Your task to perform on an android device: Clear all items from cart on walmart. Search for bose quietcomfort 35 on walmart, select the first entry, and add it to the cart. Image 0: 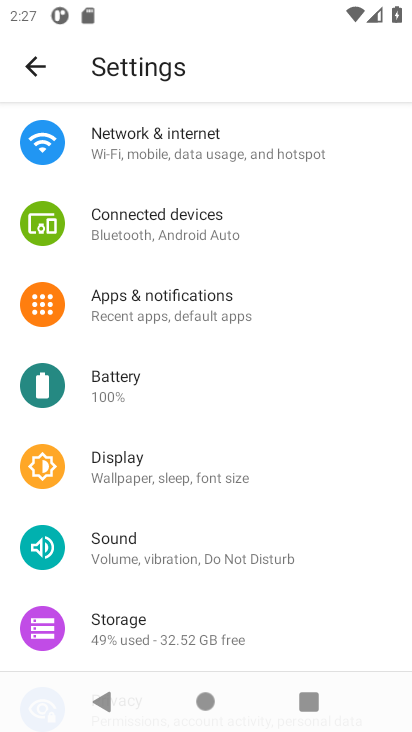
Step 0: press home button
Your task to perform on an android device: Clear all items from cart on walmart. Search for bose quietcomfort 35 on walmart, select the first entry, and add it to the cart. Image 1: 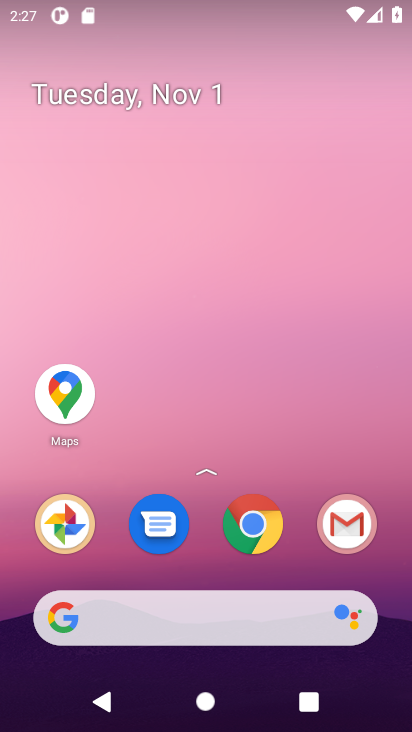
Step 1: click (253, 522)
Your task to perform on an android device: Clear all items from cart on walmart. Search for bose quietcomfort 35 on walmart, select the first entry, and add it to the cart. Image 2: 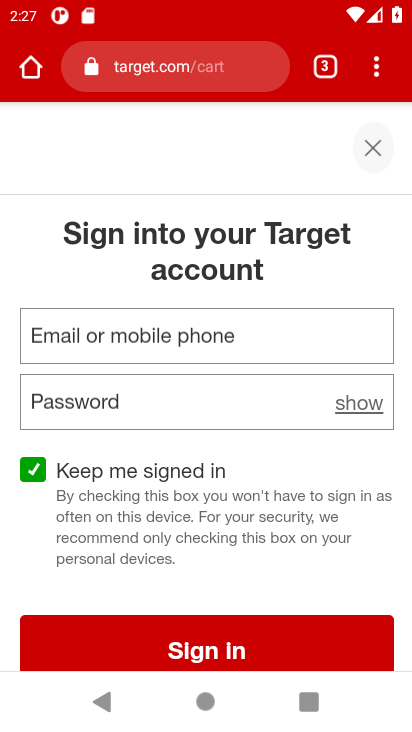
Step 2: click (177, 41)
Your task to perform on an android device: Clear all items from cart on walmart. Search for bose quietcomfort 35 on walmart, select the first entry, and add it to the cart. Image 3: 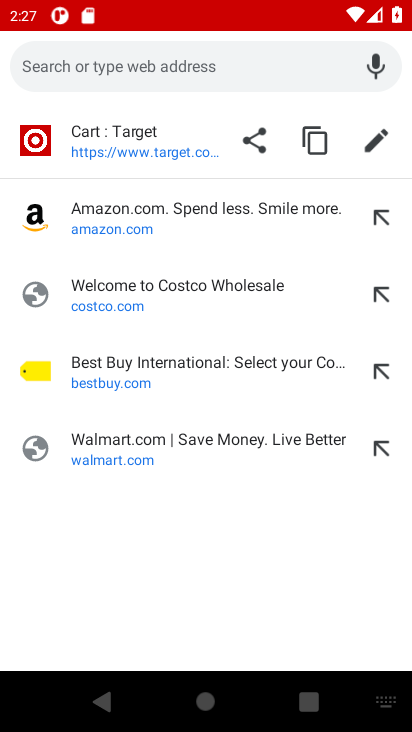
Step 3: click (123, 437)
Your task to perform on an android device: Clear all items from cart on walmart. Search for bose quietcomfort 35 on walmart, select the first entry, and add it to the cart. Image 4: 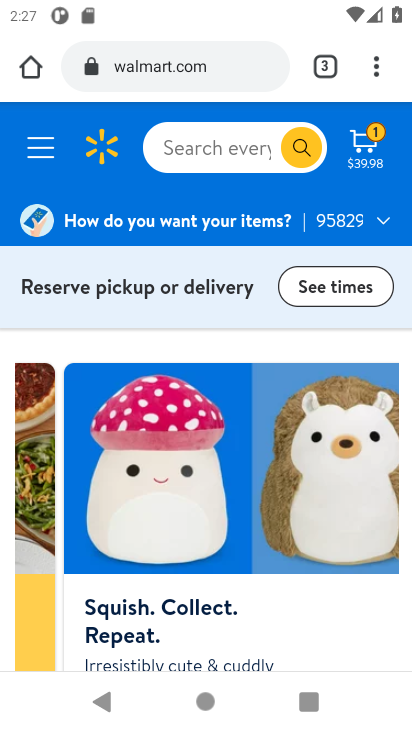
Step 4: click (365, 138)
Your task to perform on an android device: Clear all items from cart on walmart. Search for bose quietcomfort 35 on walmart, select the first entry, and add it to the cart. Image 5: 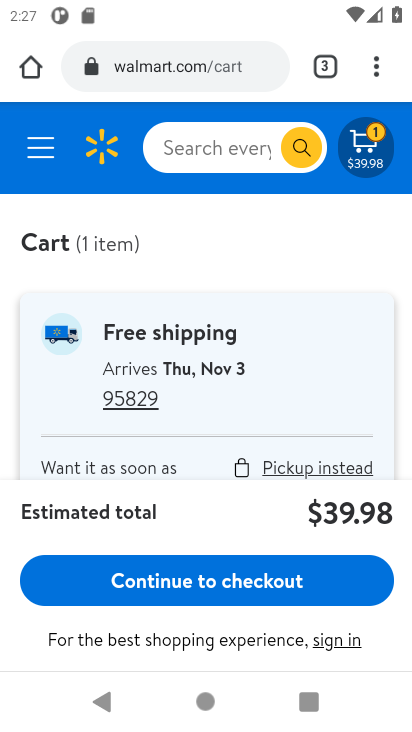
Step 5: drag from (217, 438) to (235, 149)
Your task to perform on an android device: Clear all items from cart on walmart. Search for bose quietcomfort 35 on walmart, select the first entry, and add it to the cart. Image 6: 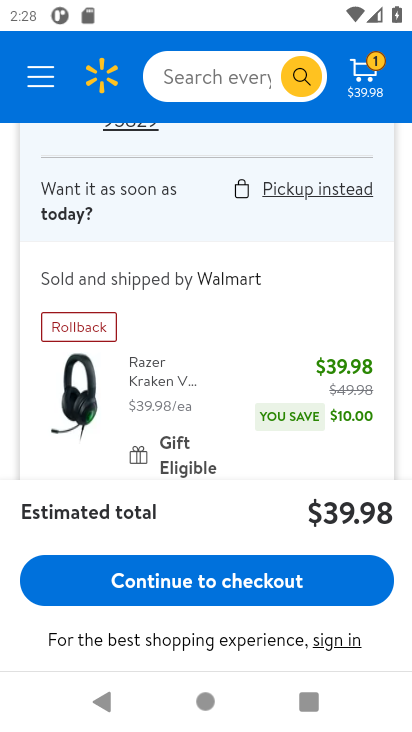
Step 6: drag from (244, 456) to (200, 205)
Your task to perform on an android device: Clear all items from cart on walmart. Search for bose quietcomfort 35 on walmart, select the first entry, and add it to the cart. Image 7: 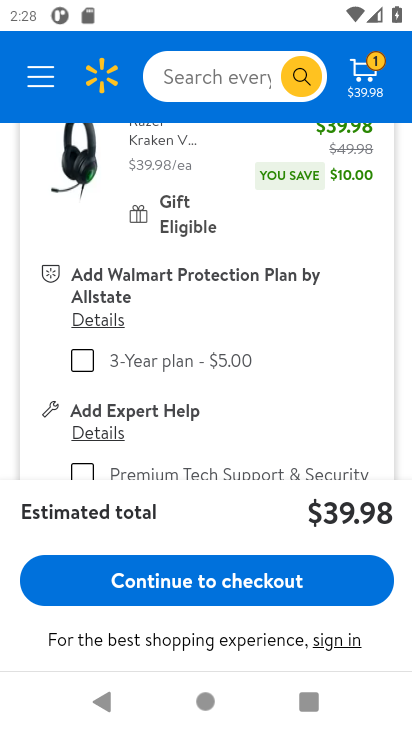
Step 7: drag from (249, 449) to (255, 254)
Your task to perform on an android device: Clear all items from cart on walmart. Search for bose quietcomfort 35 on walmart, select the first entry, and add it to the cart. Image 8: 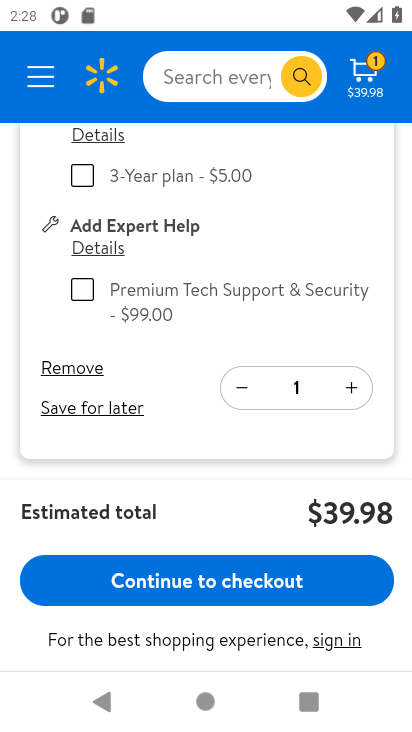
Step 8: click (48, 364)
Your task to perform on an android device: Clear all items from cart on walmart. Search for bose quietcomfort 35 on walmart, select the first entry, and add it to the cart. Image 9: 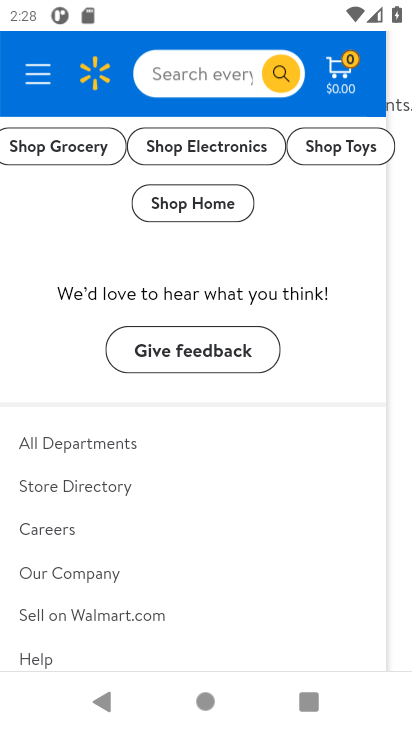
Step 9: click (168, 66)
Your task to perform on an android device: Clear all items from cart on walmart. Search for bose quietcomfort 35 on walmart, select the first entry, and add it to the cart. Image 10: 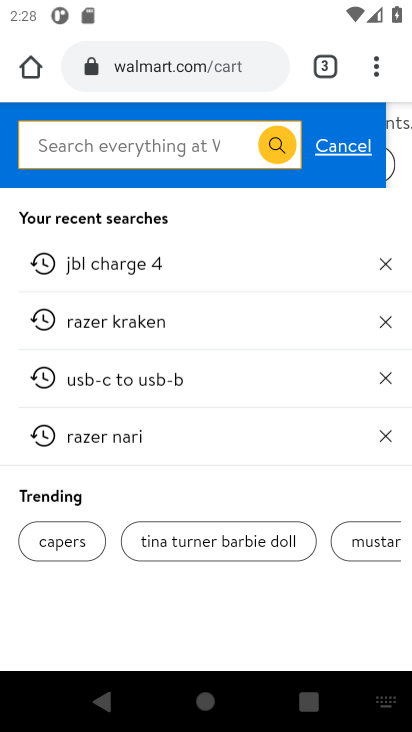
Step 10: type "bose quietcomfort 35"
Your task to perform on an android device: Clear all items from cart on walmart. Search for bose quietcomfort 35 on walmart, select the first entry, and add it to the cart. Image 11: 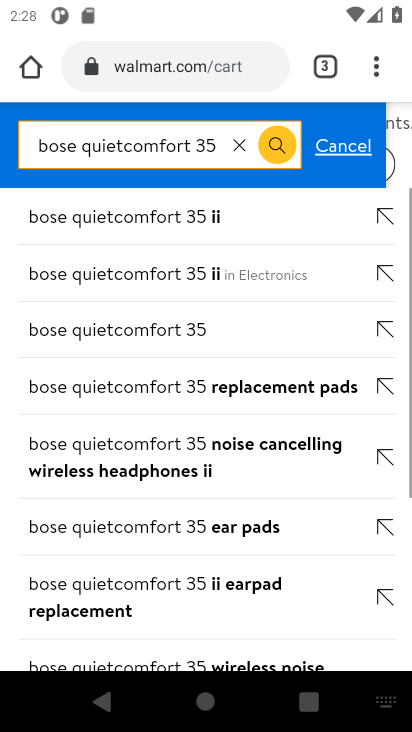
Step 11: click (97, 222)
Your task to perform on an android device: Clear all items from cart on walmart. Search for bose quietcomfort 35 on walmart, select the first entry, and add it to the cart. Image 12: 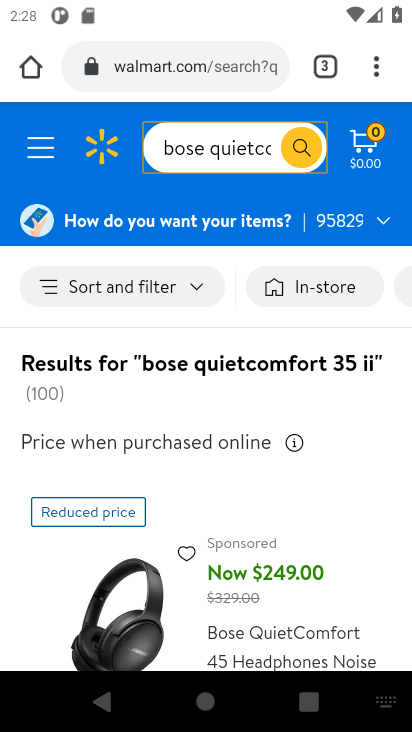
Step 12: drag from (211, 543) to (188, 218)
Your task to perform on an android device: Clear all items from cart on walmart. Search for bose quietcomfort 35 on walmart, select the first entry, and add it to the cart. Image 13: 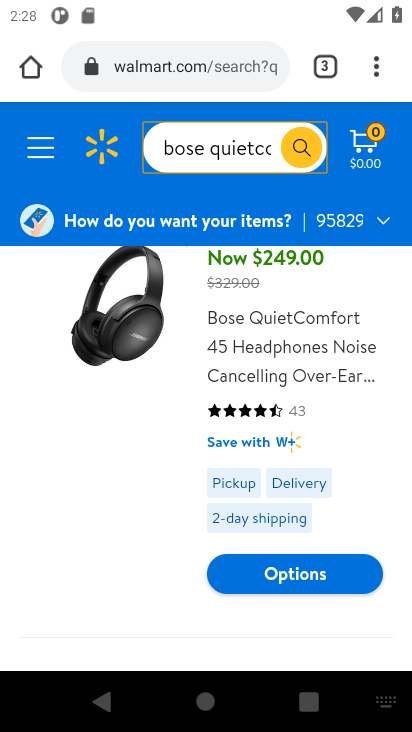
Step 13: drag from (179, 541) to (162, 186)
Your task to perform on an android device: Clear all items from cart on walmart. Search for bose quietcomfort 35 on walmart, select the first entry, and add it to the cart. Image 14: 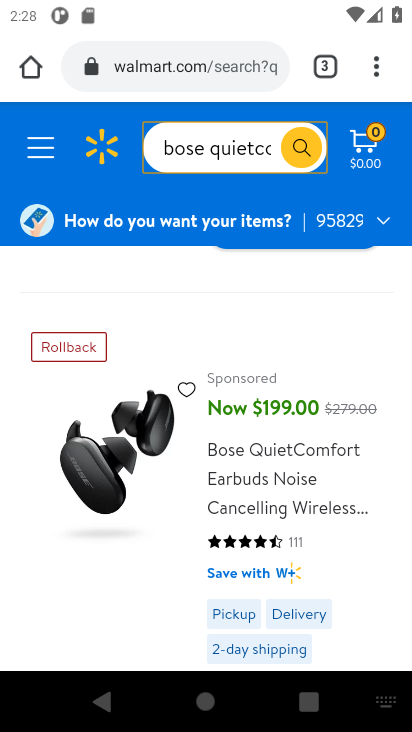
Step 14: drag from (186, 604) to (170, 224)
Your task to perform on an android device: Clear all items from cart on walmart. Search for bose quietcomfort 35 on walmart, select the first entry, and add it to the cart. Image 15: 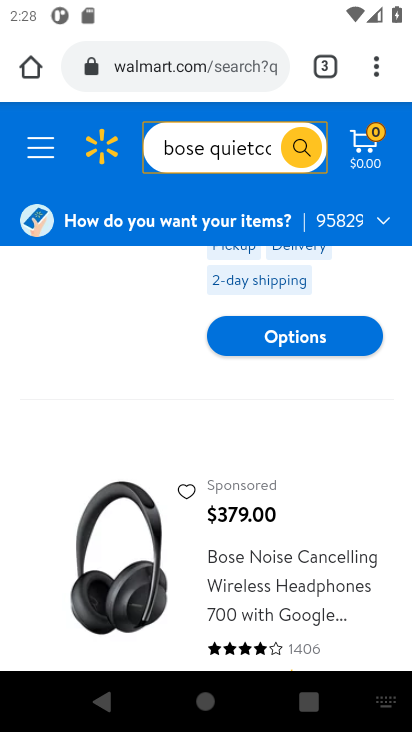
Step 15: drag from (184, 598) to (162, 251)
Your task to perform on an android device: Clear all items from cart on walmart. Search for bose quietcomfort 35 on walmart, select the first entry, and add it to the cart. Image 16: 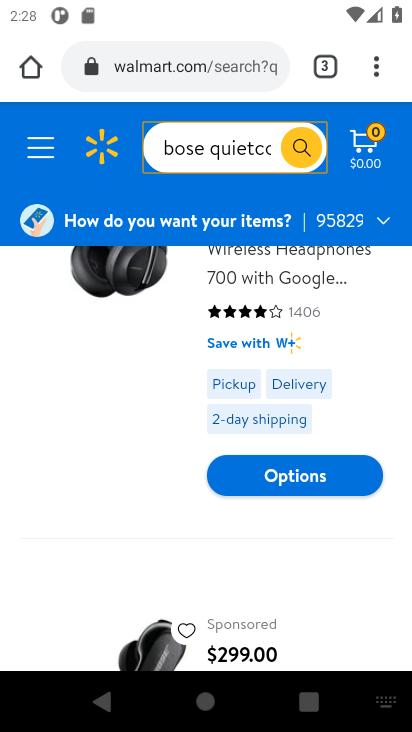
Step 16: drag from (165, 583) to (145, 260)
Your task to perform on an android device: Clear all items from cart on walmart. Search for bose quietcomfort 35 on walmart, select the first entry, and add it to the cart. Image 17: 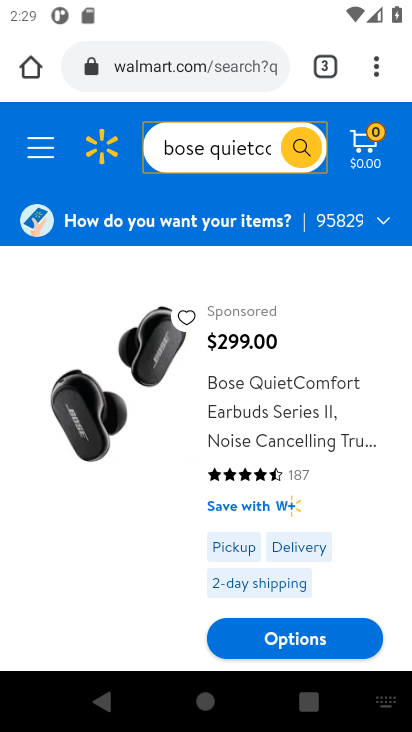
Step 17: drag from (197, 616) to (179, 258)
Your task to perform on an android device: Clear all items from cart on walmart. Search for bose quietcomfort 35 on walmart, select the first entry, and add it to the cart. Image 18: 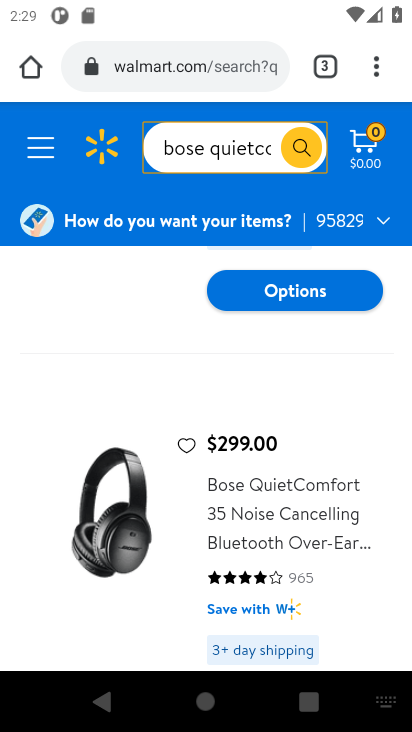
Step 18: drag from (195, 579) to (175, 413)
Your task to perform on an android device: Clear all items from cart on walmart. Search for bose quietcomfort 35 on walmart, select the first entry, and add it to the cart. Image 19: 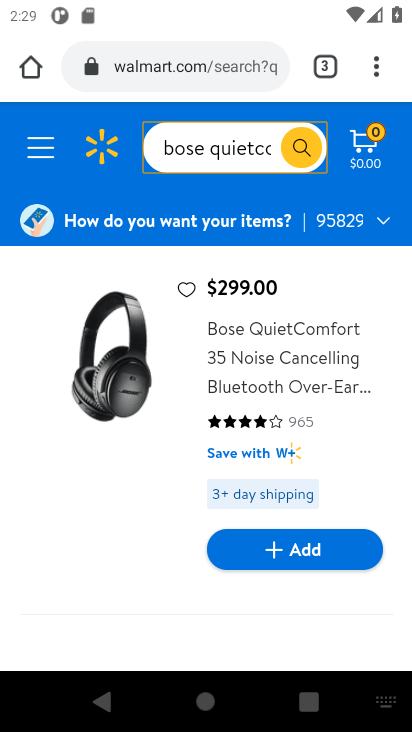
Step 19: click (277, 549)
Your task to perform on an android device: Clear all items from cart on walmart. Search for bose quietcomfort 35 on walmart, select the first entry, and add it to the cart. Image 20: 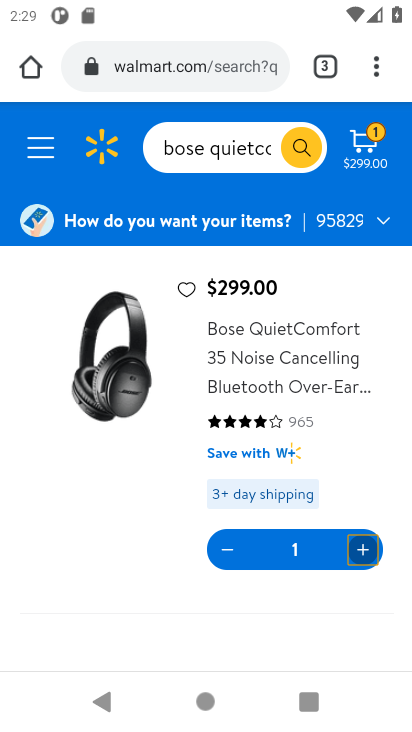
Step 20: task complete